Your task to perform on an android device: Go to privacy settings Image 0: 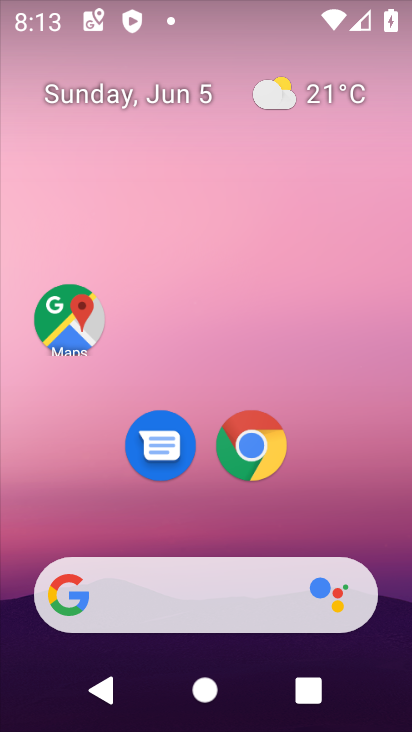
Step 0: drag from (181, 491) to (166, 46)
Your task to perform on an android device: Go to privacy settings Image 1: 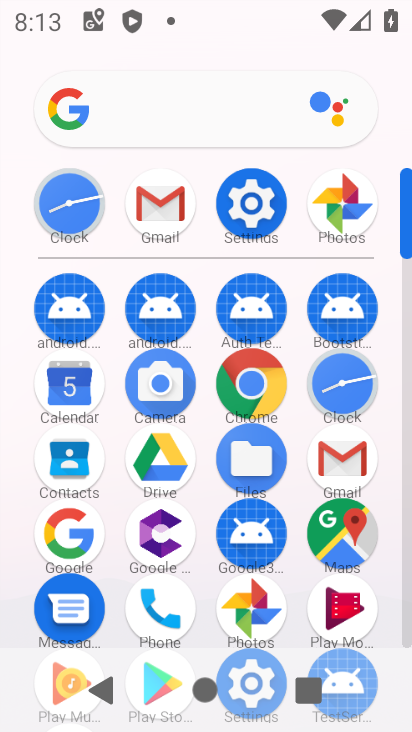
Step 1: click (263, 199)
Your task to perform on an android device: Go to privacy settings Image 2: 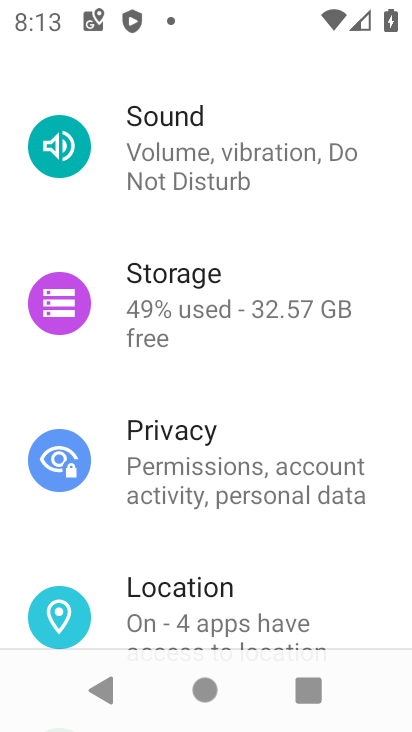
Step 2: drag from (296, 492) to (279, 305)
Your task to perform on an android device: Go to privacy settings Image 3: 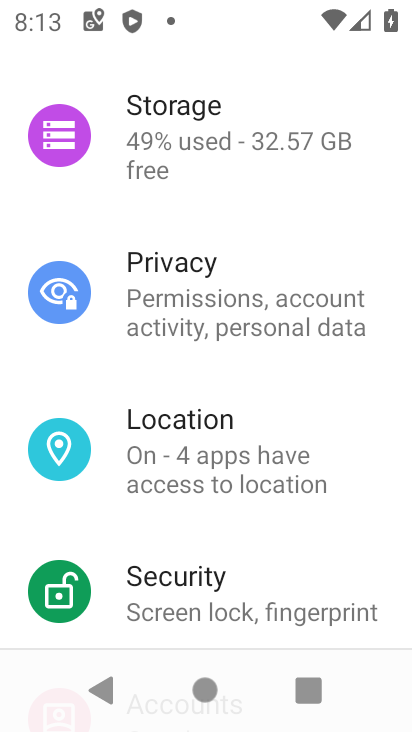
Step 3: click (219, 298)
Your task to perform on an android device: Go to privacy settings Image 4: 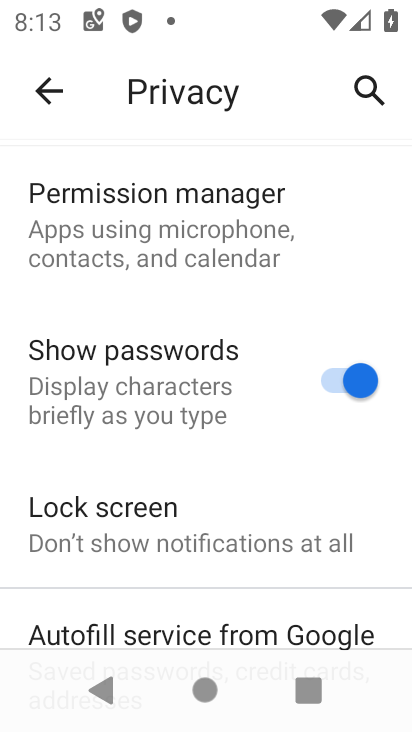
Step 4: task complete